Your task to perform on an android device: manage bookmarks in the chrome app Image 0: 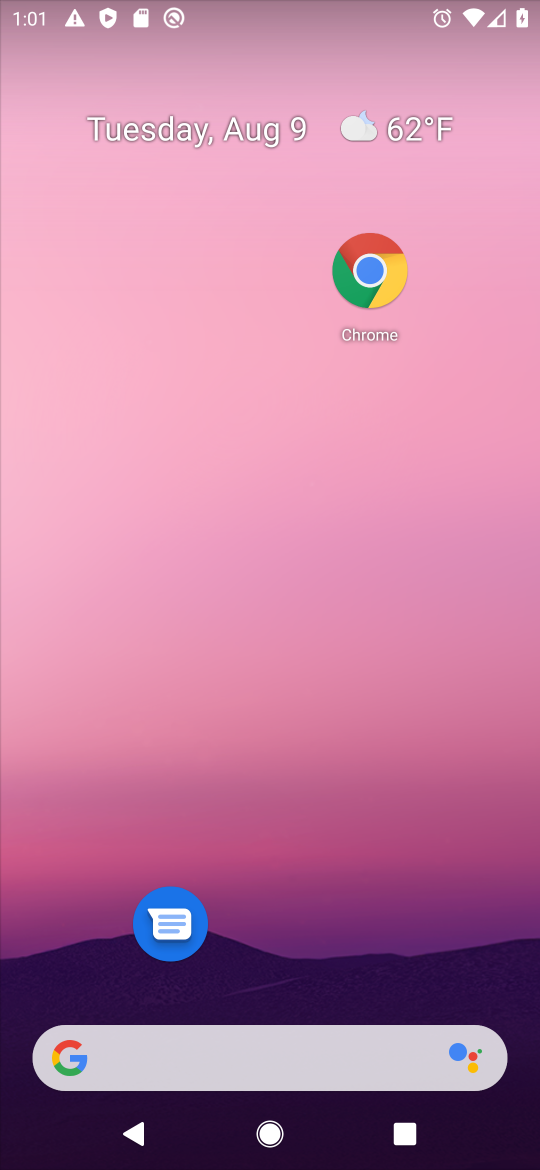
Step 0: click (384, 283)
Your task to perform on an android device: manage bookmarks in the chrome app Image 1: 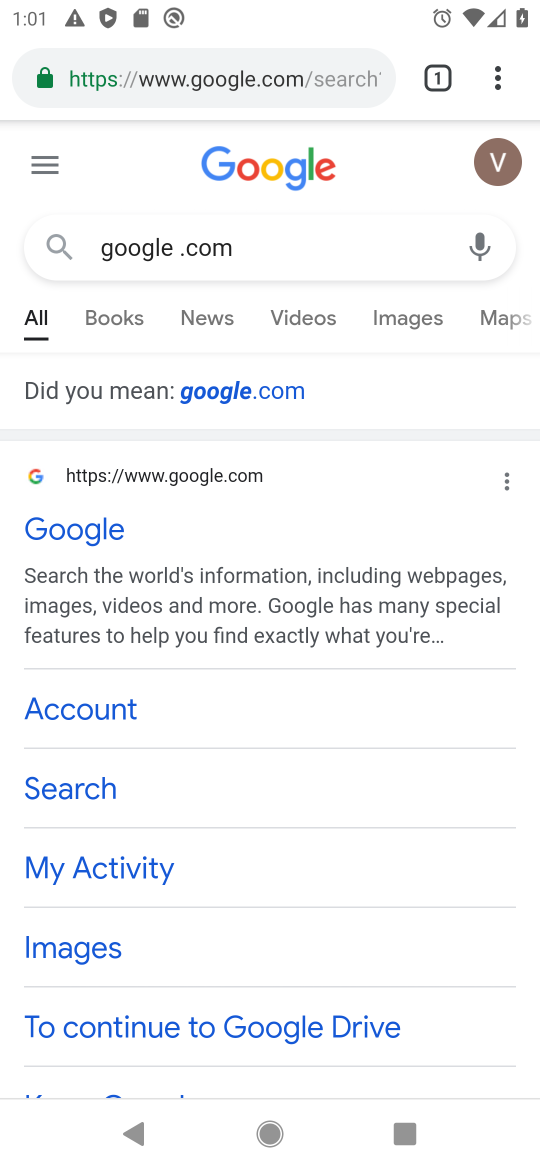
Step 1: click (504, 76)
Your task to perform on an android device: manage bookmarks in the chrome app Image 2: 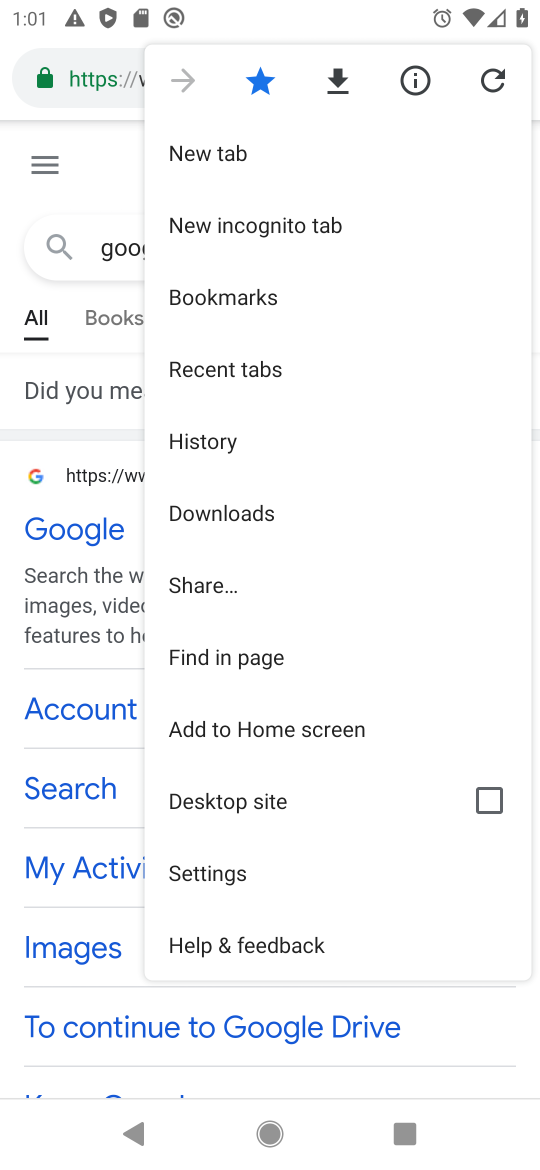
Step 2: task complete